Your task to perform on an android device: Open Yahoo.com Image 0: 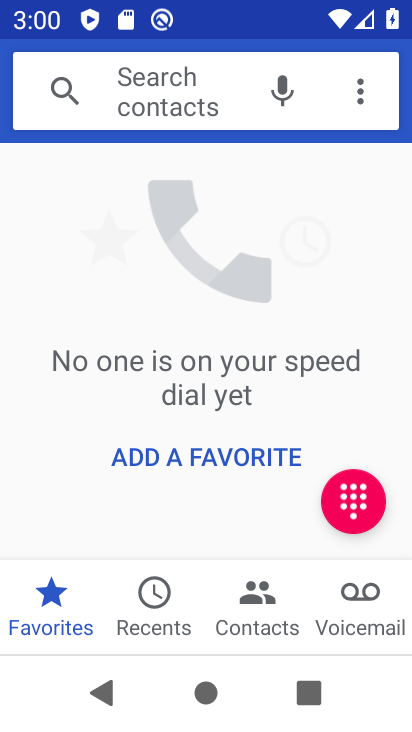
Step 0: press home button
Your task to perform on an android device: Open Yahoo.com Image 1: 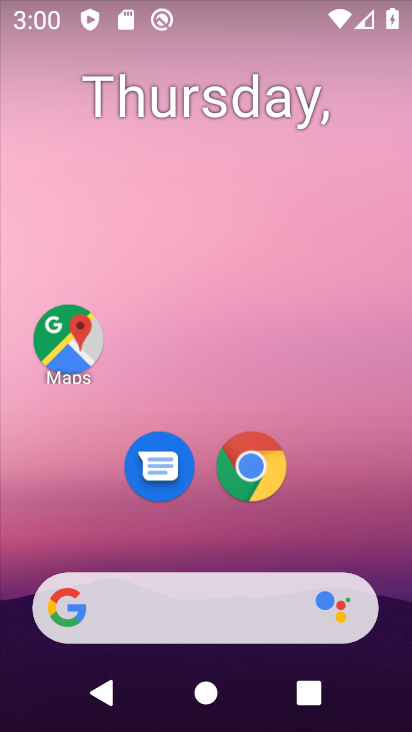
Step 1: click (240, 485)
Your task to perform on an android device: Open Yahoo.com Image 2: 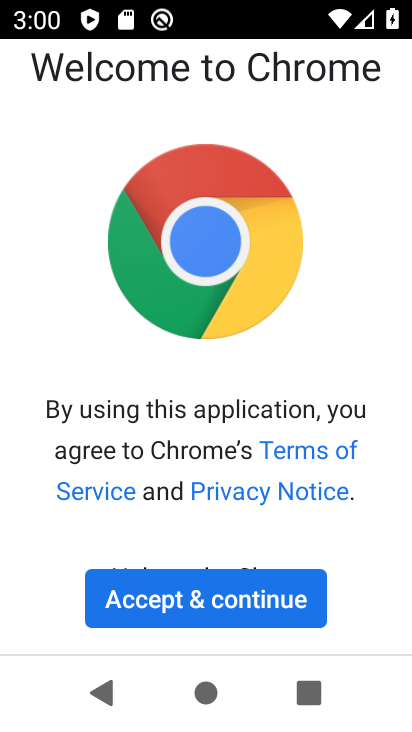
Step 2: click (229, 627)
Your task to perform on an android device: Open Yahoo.com Image 3: 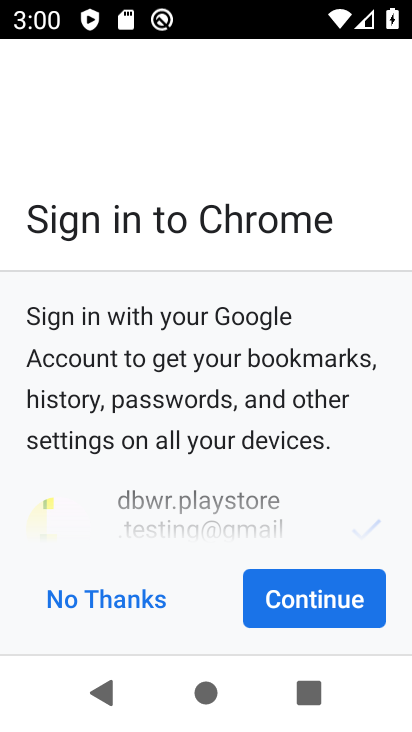
Step 3: click (282, 603)
Your task to perform on an android device: Open Yahoo.com Image 4: 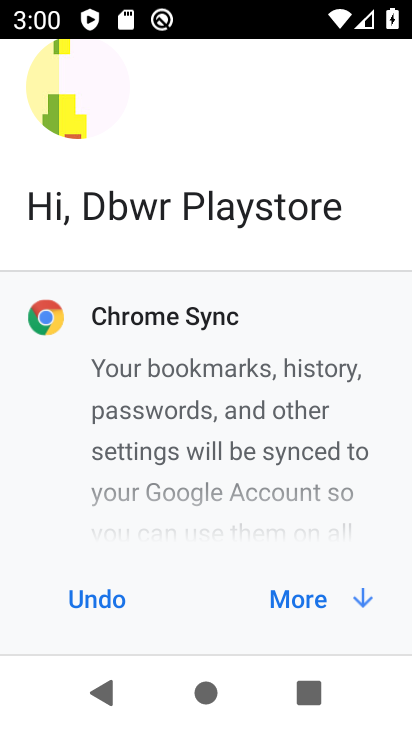
Step 4: click (288, 602)
Your task to perform on an android device: Open Yahoo.com Image 5: 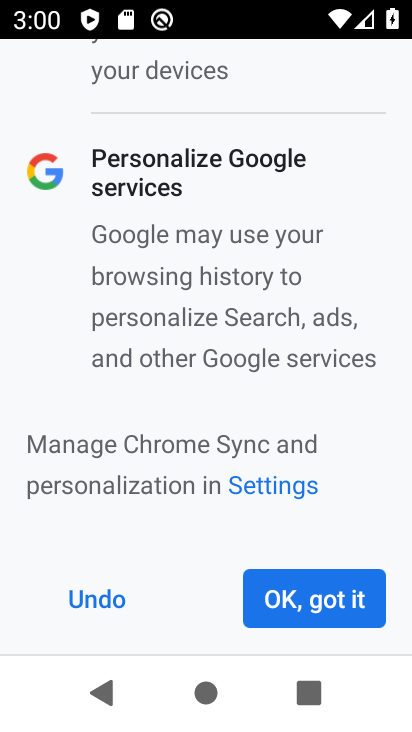
Step 5: click (288, 602)
Your task to perform on an android device: Open Yahoo.com Image 6: 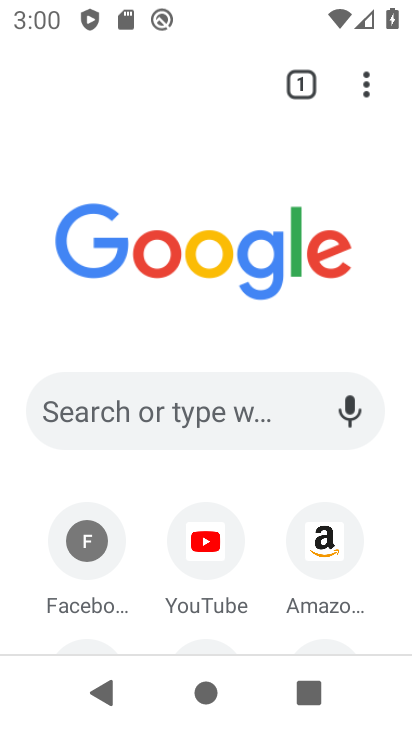
Step 6: drag from (266, 615) to (210, 210)
Your task to perform on an android device: Open Yahoo.com Image 7: 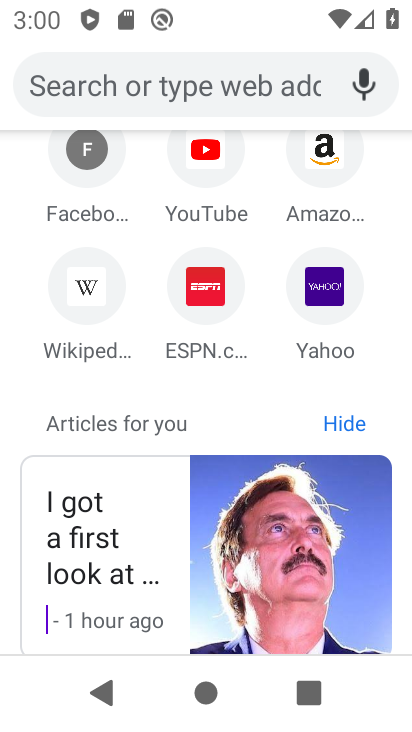
Step 7: click (311, 288)
Your task to perform on an android device: Open Yahoo.com Image 8: 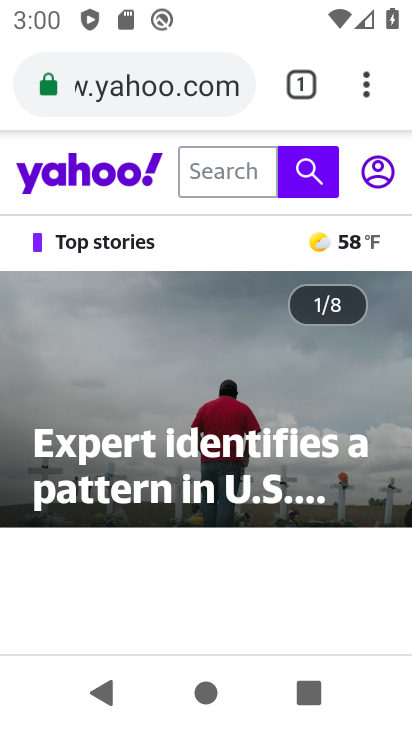
Step 8: task complete